Your task to perform on an android device: Toggle the flashlight Image 0: 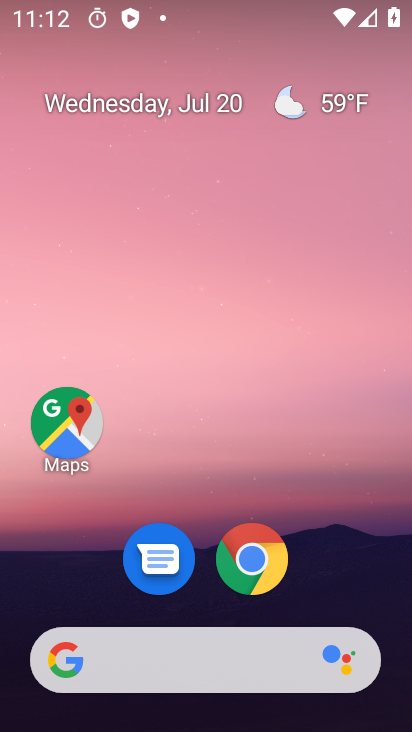
Step 0: drag from (193, 587) to (246, 81)
Your task to perform on an android device: Toggle the flashlight Image 1: 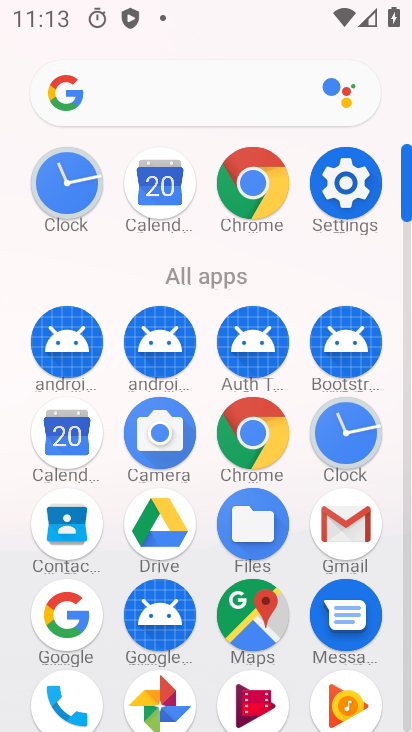
Step 1: click (342, 181)
Your task to perform on an android device: Toggle the flashlight Image 2: 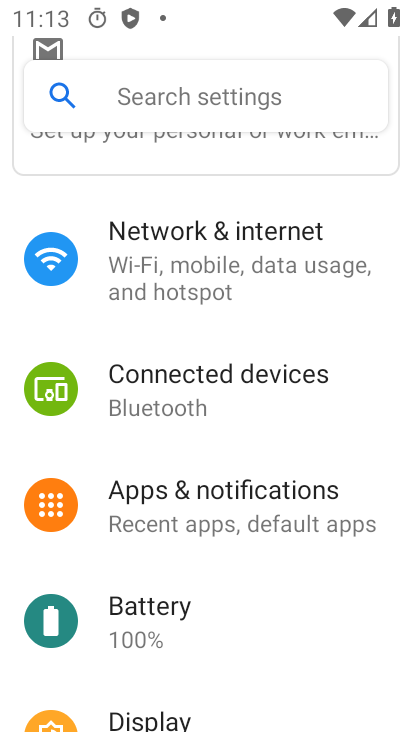
Step 2: click (192, 85)
Your task to perform on an android device: Toggle the flashlight Image 3: 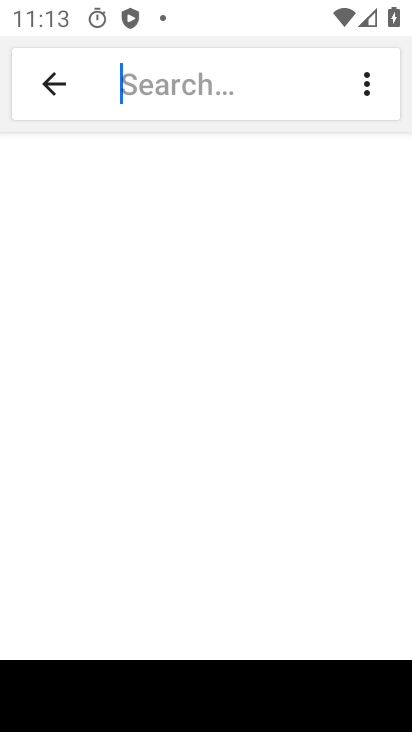
Step 3: type "flashlight"
Your task to perform on an android device: Toggle the flashlight Image 4: 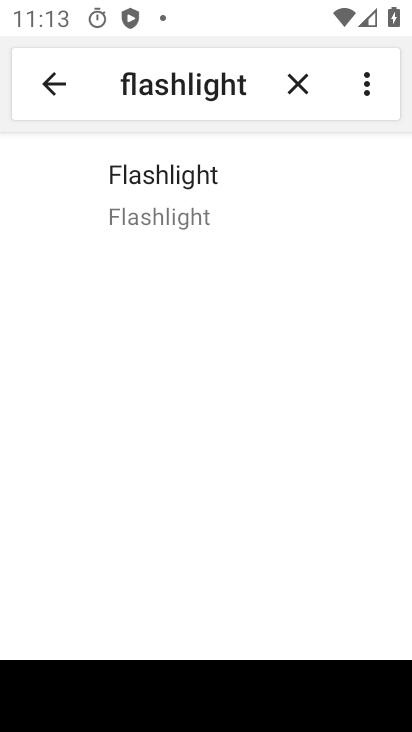
Step 4: click (293, 182)
Your task to perform on an android device: Toggle the flashlight Image 5: 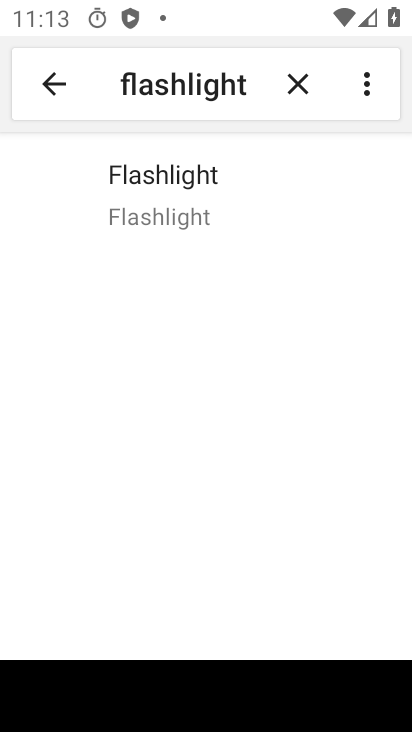
Step 5: task complete